Your task to perform on an android device: Go to notification settings Image 0: 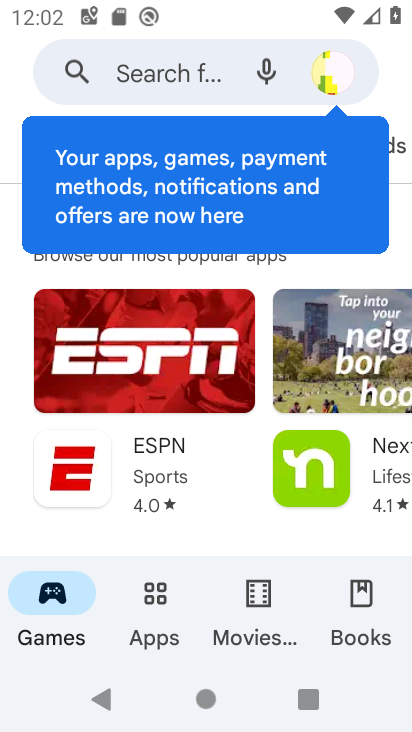
Step 0: press back button
Your task to perform on an android device: Go to notification settings Image 1: 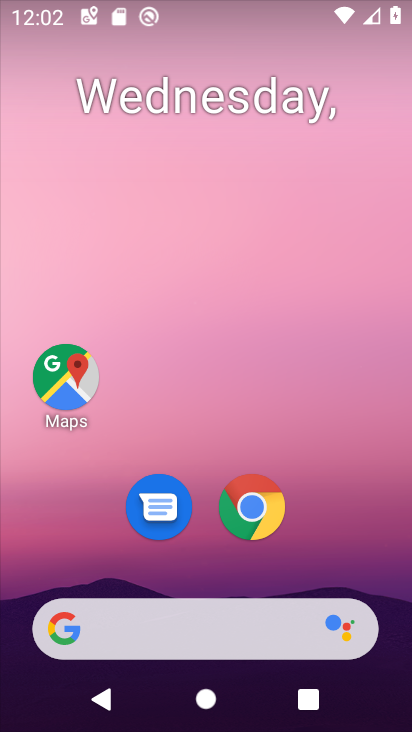
Step 1: drag from (261, 707) to (256, 125)
Your task to perform on an android device: Go to notification settings Image 2: 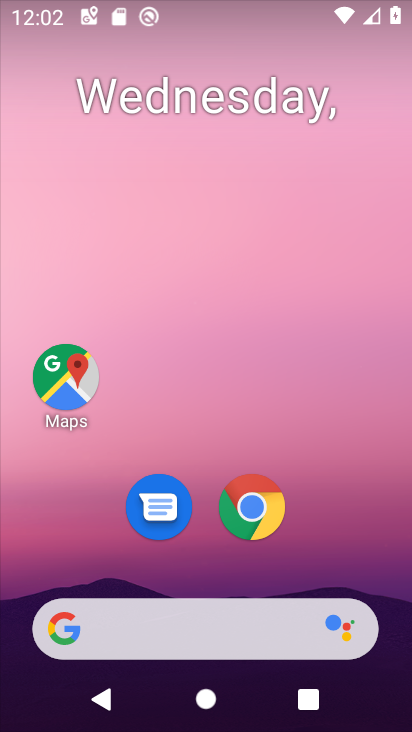
Step 2: drag from (249, 677) to (217, 84)
Your task to perform on an android device: Go to notification settings Image 3: 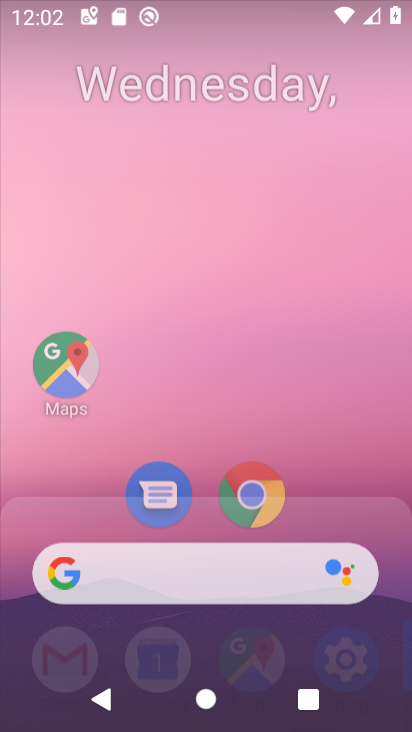
Step 3: drag from (174, 274) to (177, 187)
Your task to perform on an android device: Go to notification settings Image 4: 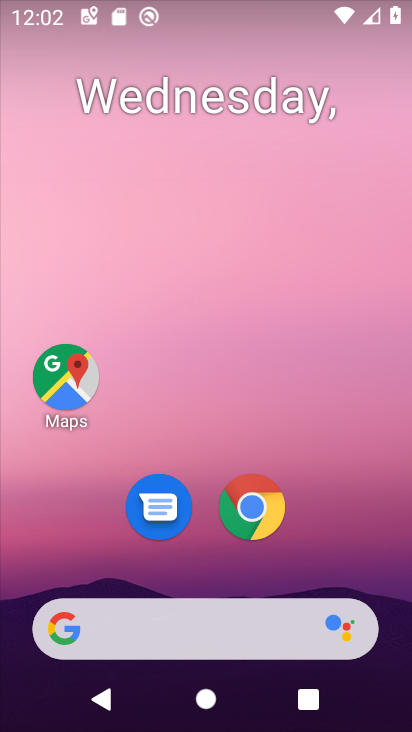
Step 4: drag from (230, 563) to (230, 54)
Your task to perform on an android device: Go to notification settings Image 5: 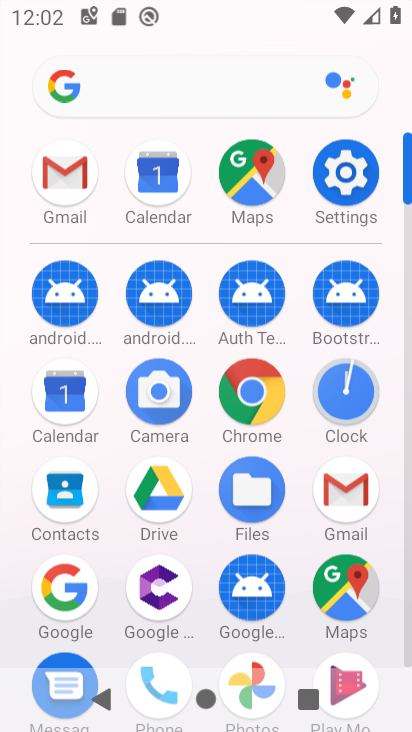
Step 5: drag from (206, 664) to (198, 51)
Your task to perform on an android device: Go to notification settings Image 6: 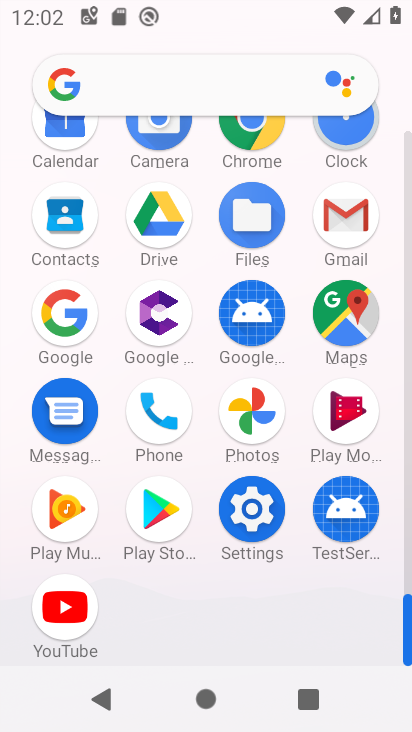
Step 6: click (262, 520)
Your task to perform on an android device: Go to notification settings Image 7: 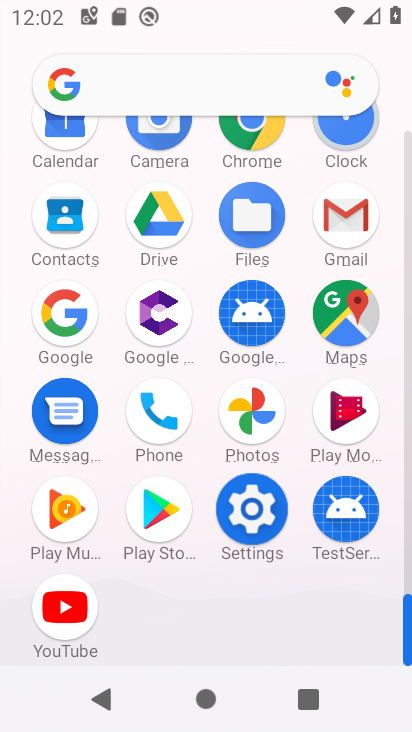
Step 7: click (262, 509)
Your task to perform on an android device: Go to notification settings Image 8: 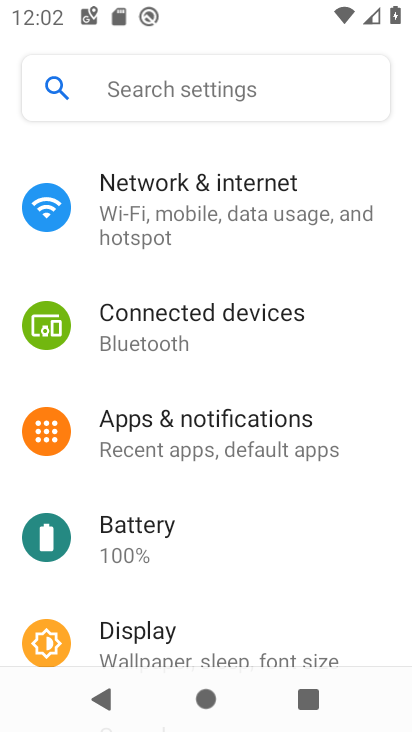
Step 8: click (266, 508)
Your task to perform on an android device: Go to notification settings Image 9: 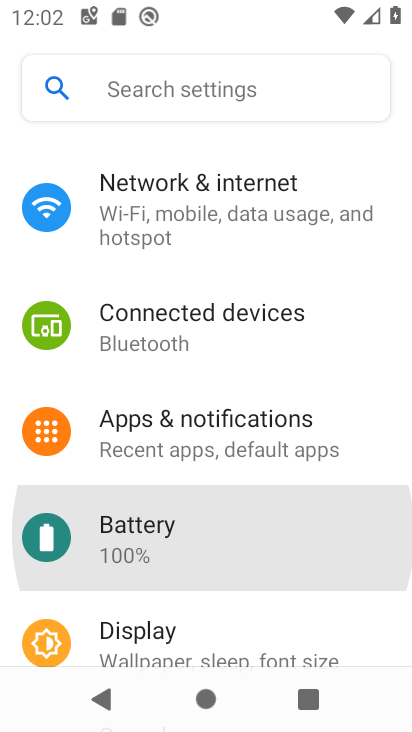
Step 9: click (268, 503)
Your task to perform on an android device: Go to notification settings Image 10: 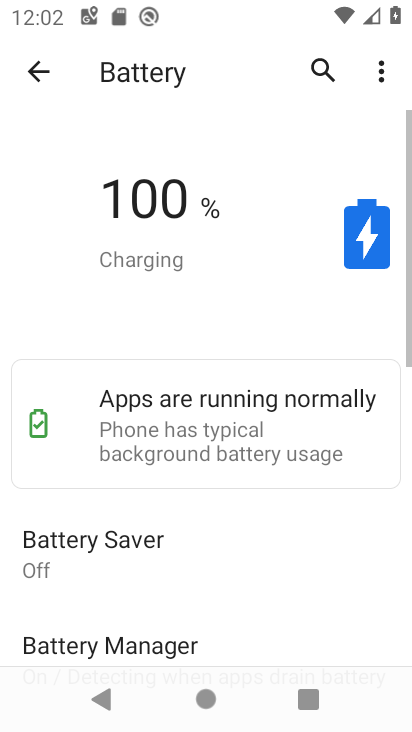
Step 10: click (33, 63)
Your task to perform on an android device: Go to notification settings Image 11: 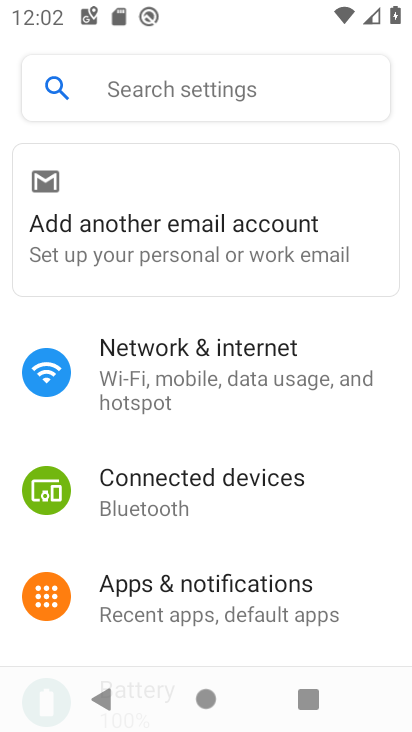
Step 11: click (181, 611)
Your task to perform on an android device: Go to notification settings Image 12: 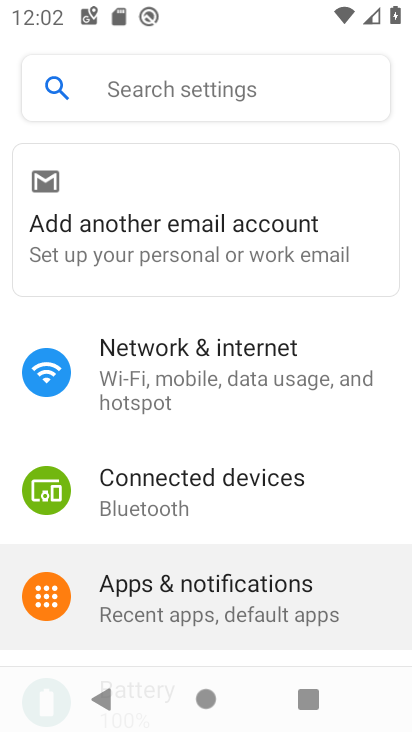
Step 12: click (188, 600)
Your task to perform on an android device: Go to notification settings Image 13: 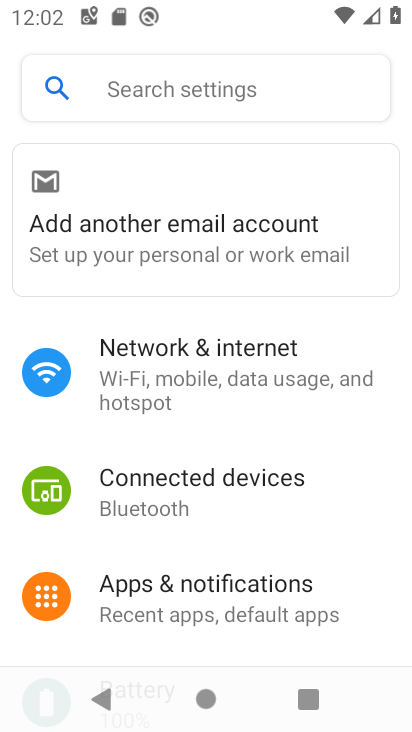
Step 13: click (198, 594)
Your task to perform on an android device: Go to notification settings Image 14: 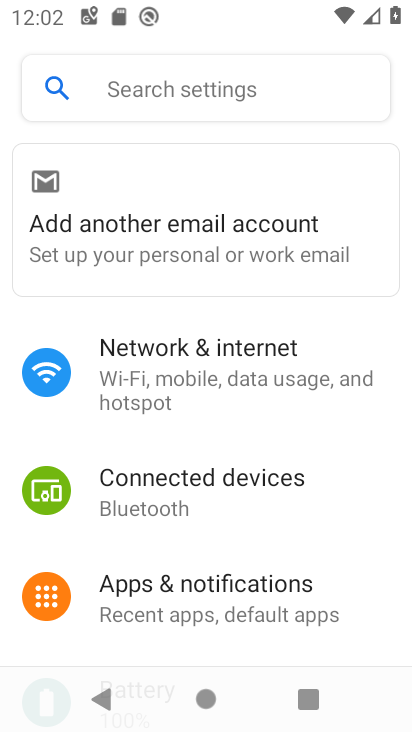
Step 14: click (198, 594)
Your task to perform on an android device: Go to notification settings Image 15: 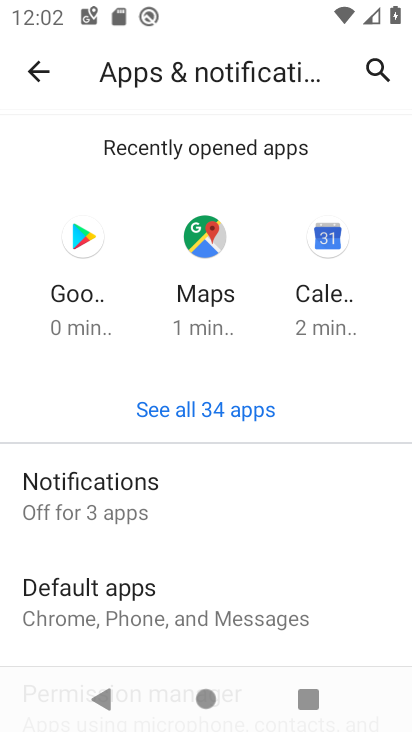
Step 15: click (74, 483)
Your task to perform on an android device: Go to notification settings Image 16: 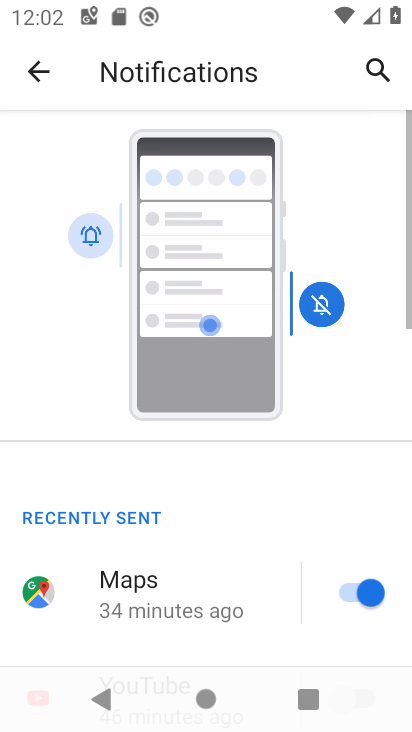
Step 16: task complete